Your task to perform on an android device: Open the calendar app, open the side menu, and click the "Day" option Image 0: 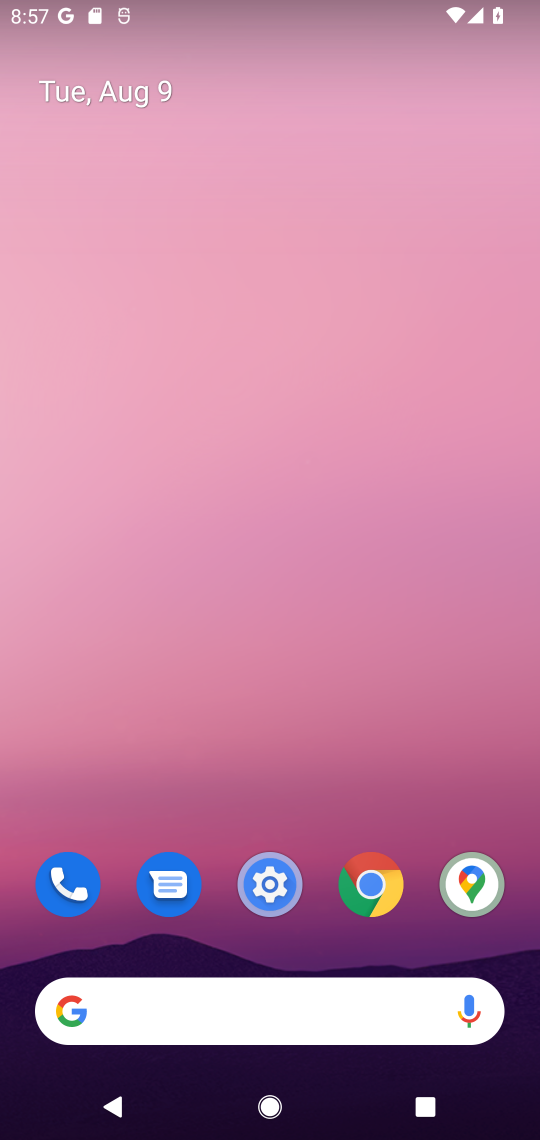
Step 0: drag from (244, 898) to (311, 313)
Your task to perform on an android device: Open the calendar app, open the side menu, and click the "Day" option Image 1: 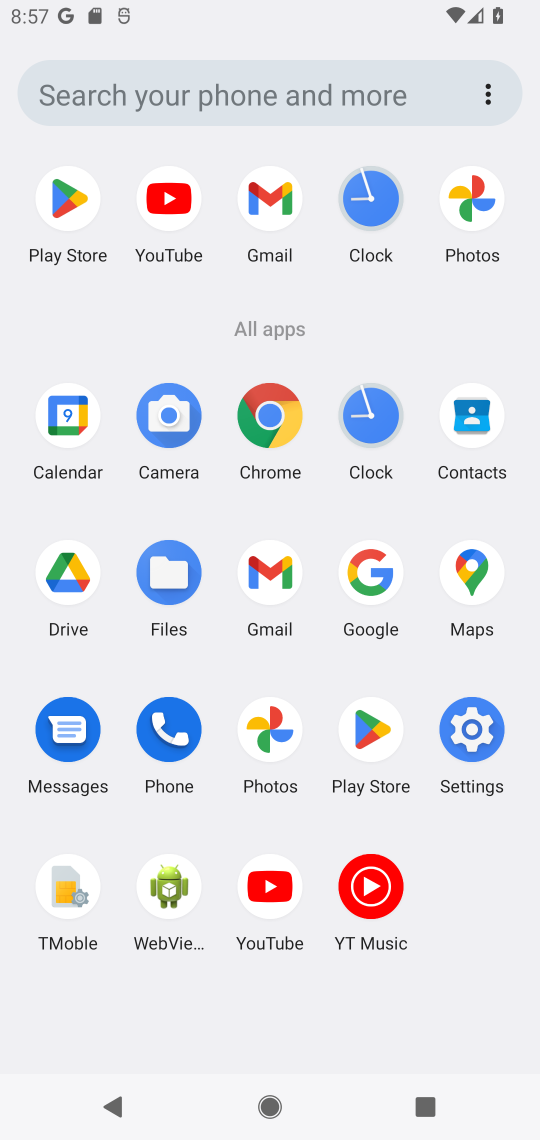
Step 1: click (83, 412)
Your task to perform on an android device: Open the calendar app, open the side menu, and click the "Day" option Image 2: 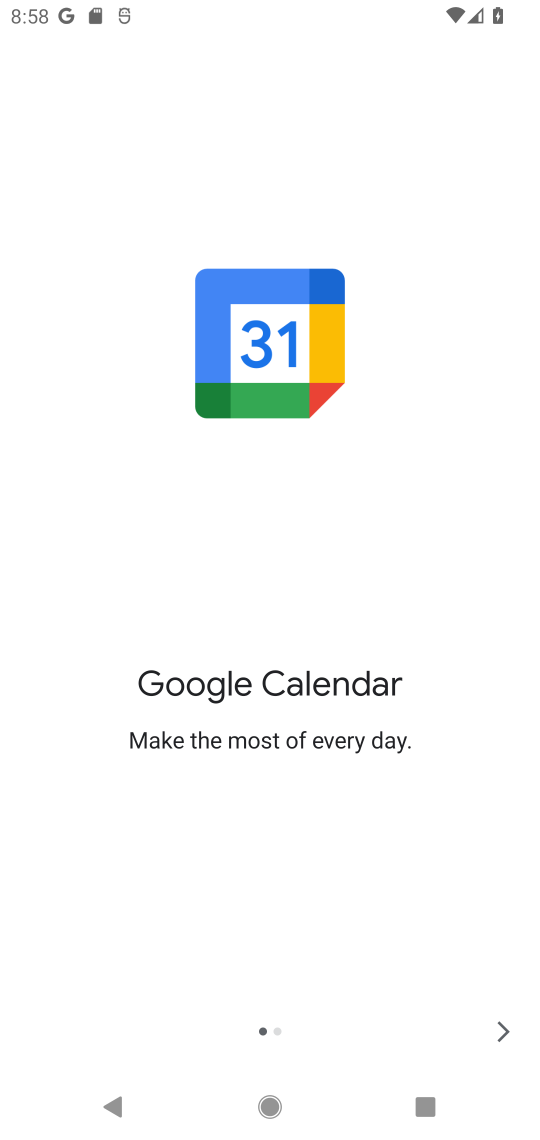
Step 2: click (484, 1022)
Your task to perform on an android device: Open the calendar app, open the side menu, and click the "Day" option Image 3: 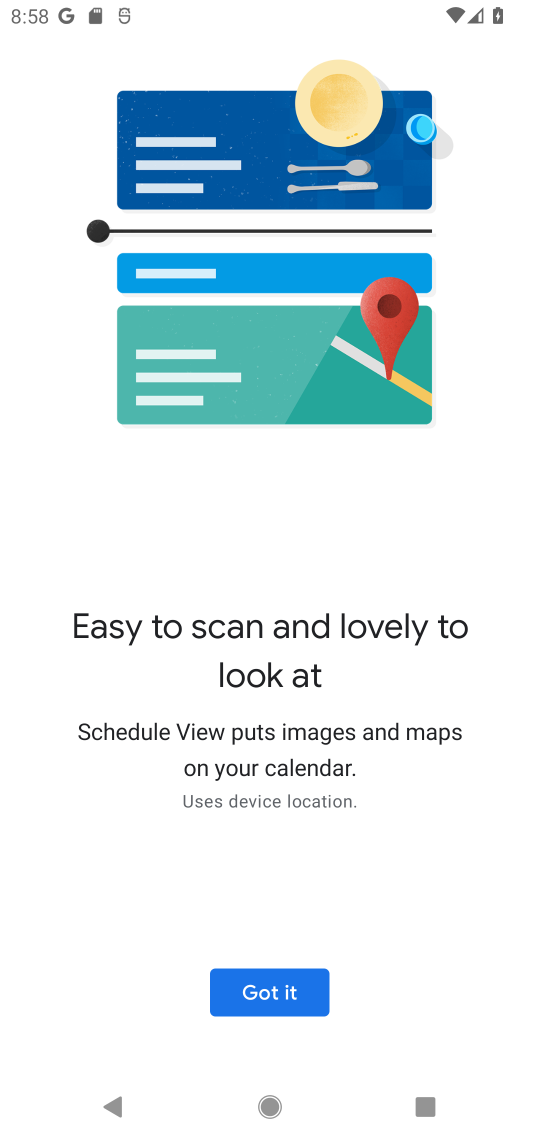
Step 3: click (285, 982)
Your task to perform on an android device: Open the calendar app, open the side menu, and click the "Day" option Image 4: 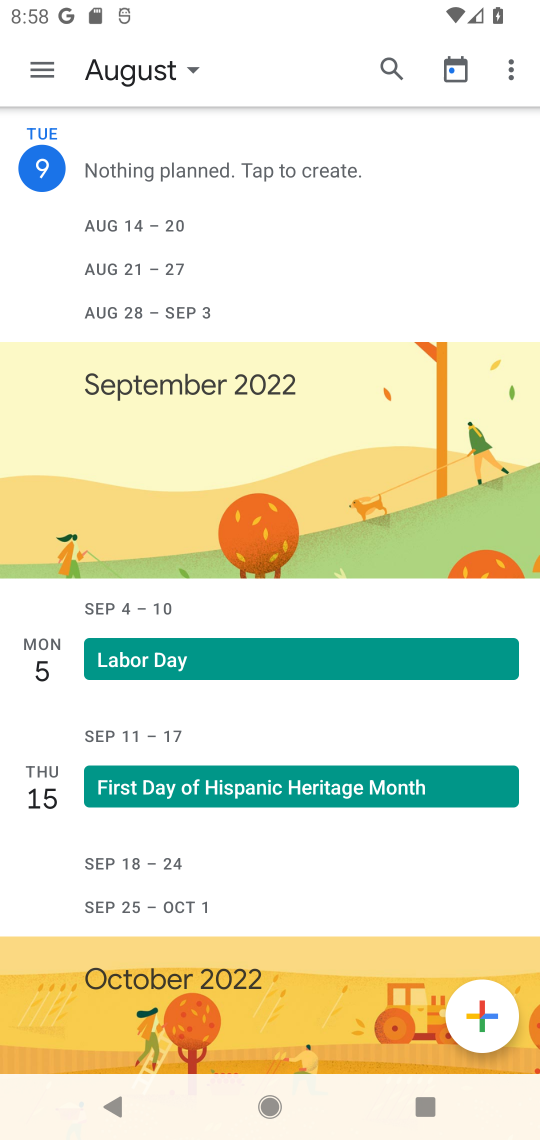
Step 4: click (64, 71)
Your task to perform on an android device: Open the calendar app, open the side menu, and click the "Day" option Image 5: 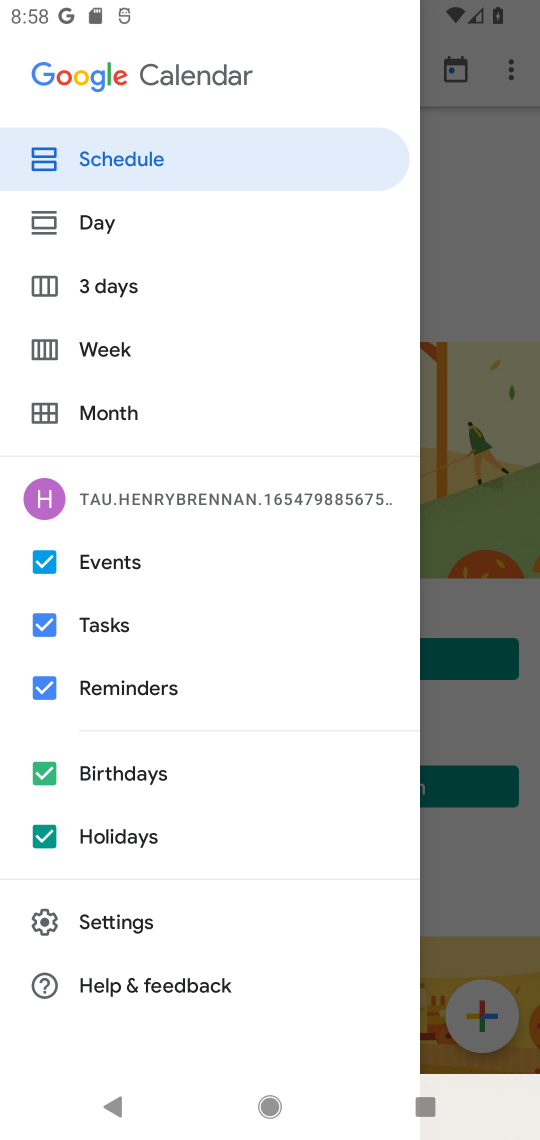
Step 5: click (141, 237)
Your task to perform on an android device: Open the calendar app, open the side menu, and click the "Day" option Image 6: 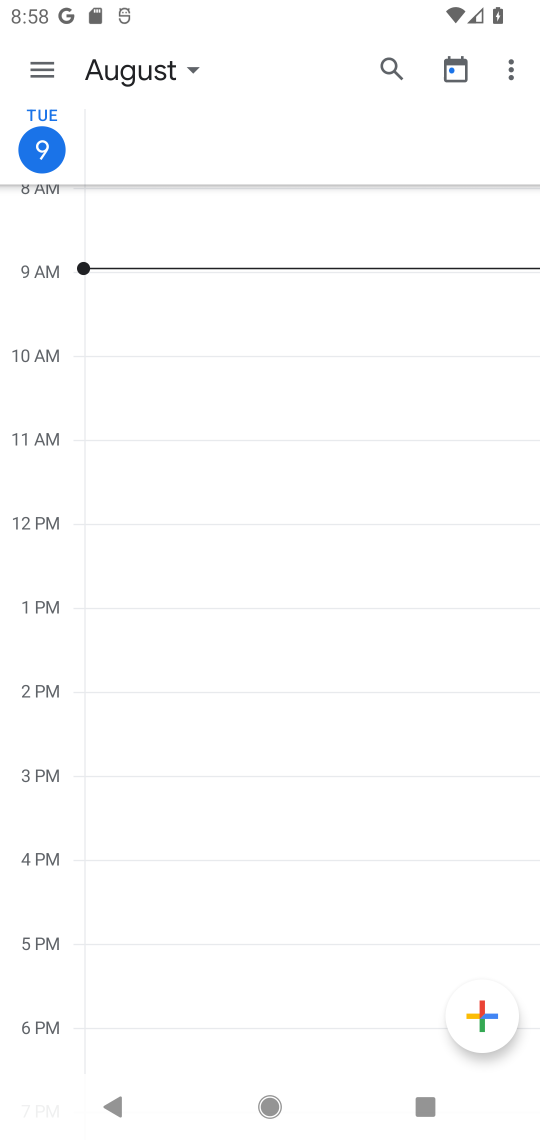
Step 6: task complete